Your task to perform on an android device: open app "Spotify" (install if not already installed) Image 0: 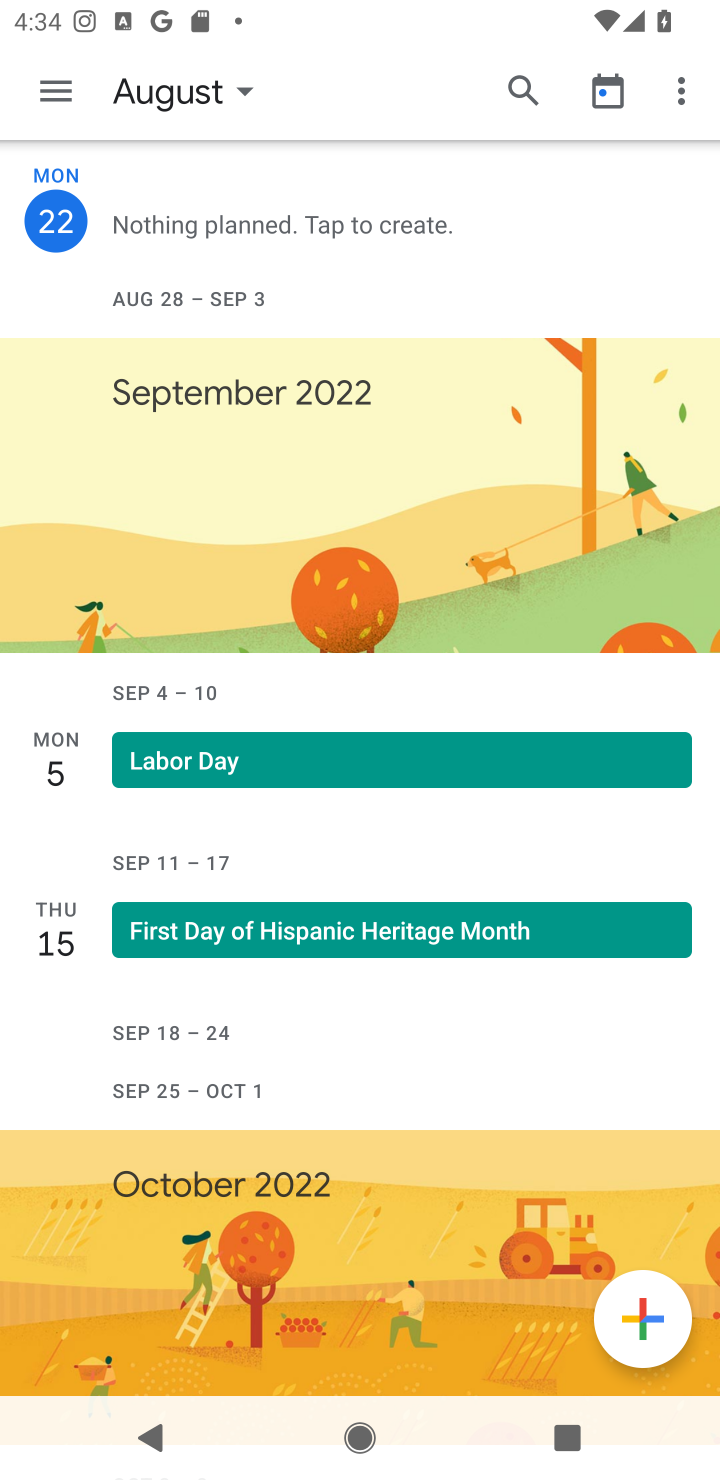
Step 0: press home button
Your task to perform on an android device: open app "Spotify" (install if not already installed) Image 1: 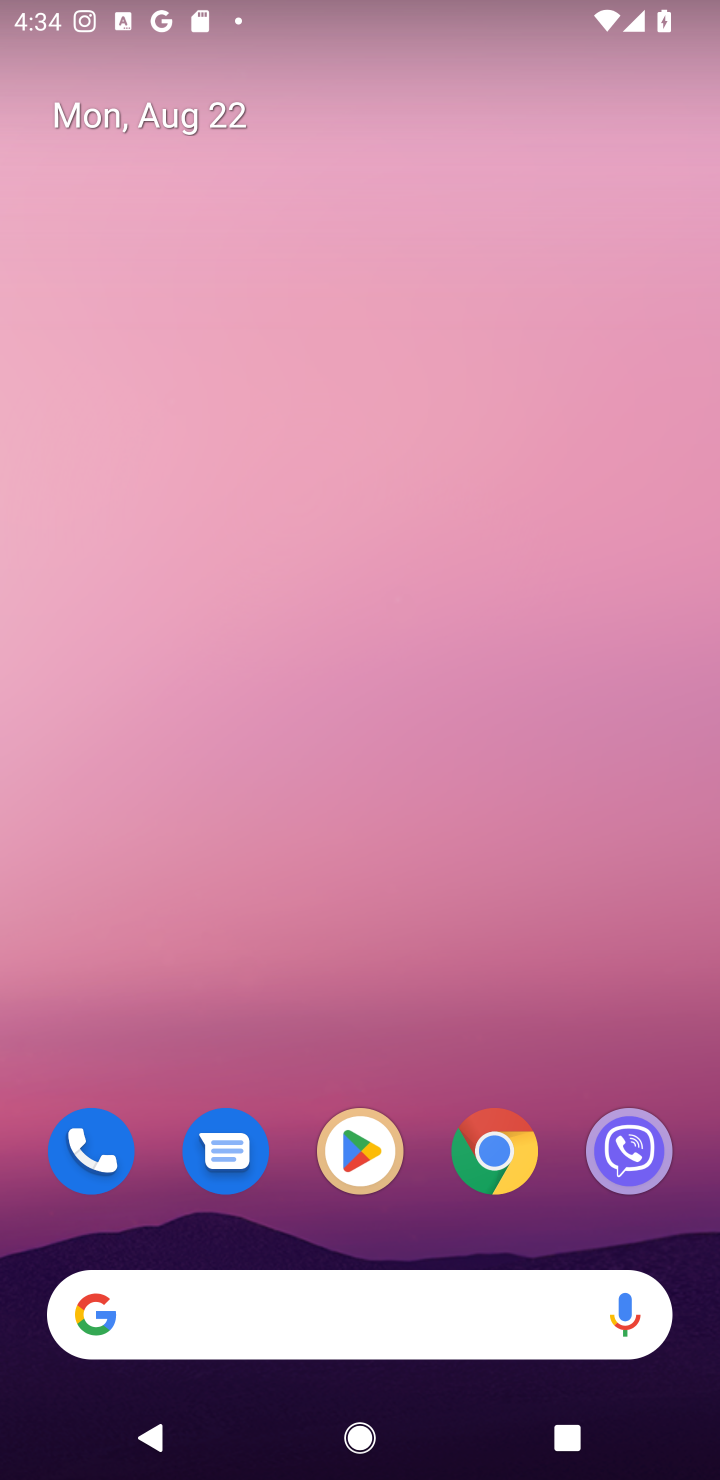
Step 1: click (359, 1153)
Your task to perform on an android device: open app "Spotify" (install if not already installed) Image 2: 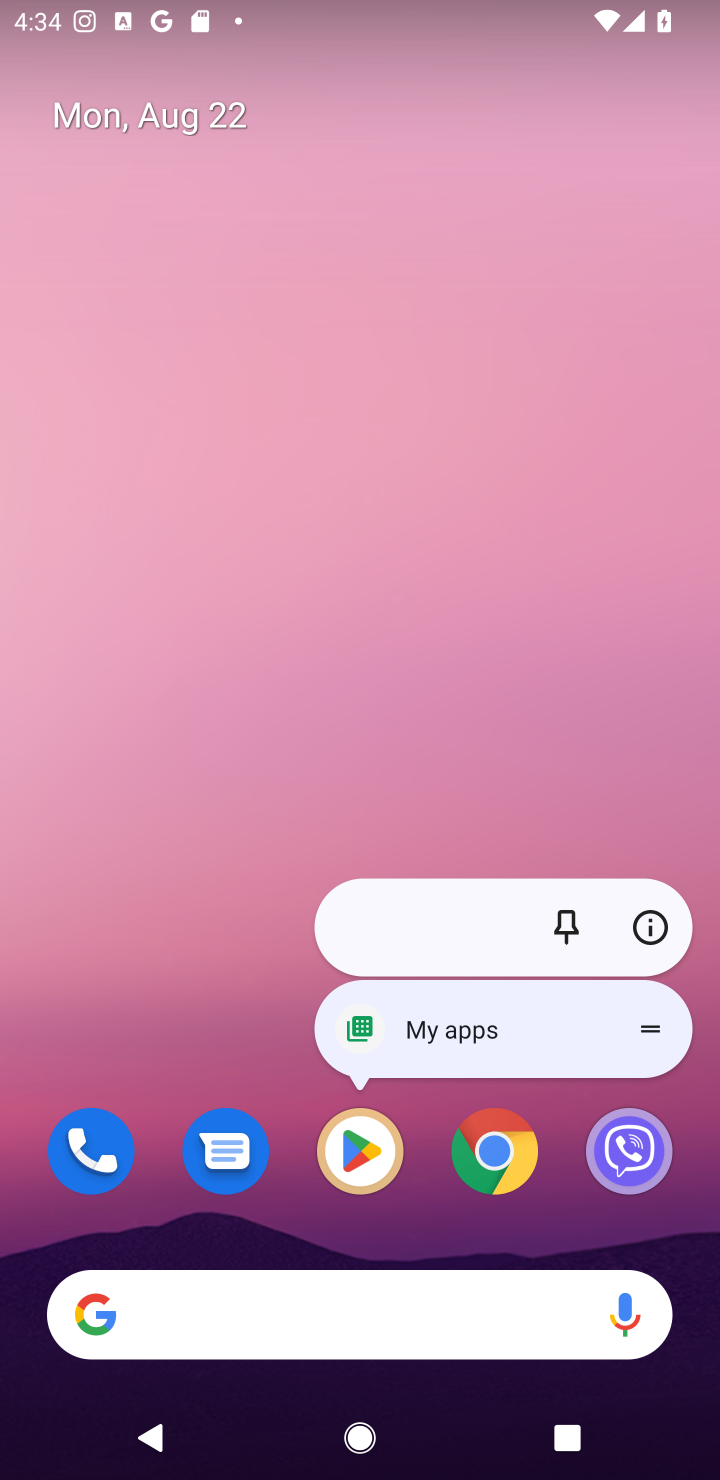
Step 2: click (350, 1151)
Your task to perform on an android device: open app "Spotify" (install if not already installed) Image 3: 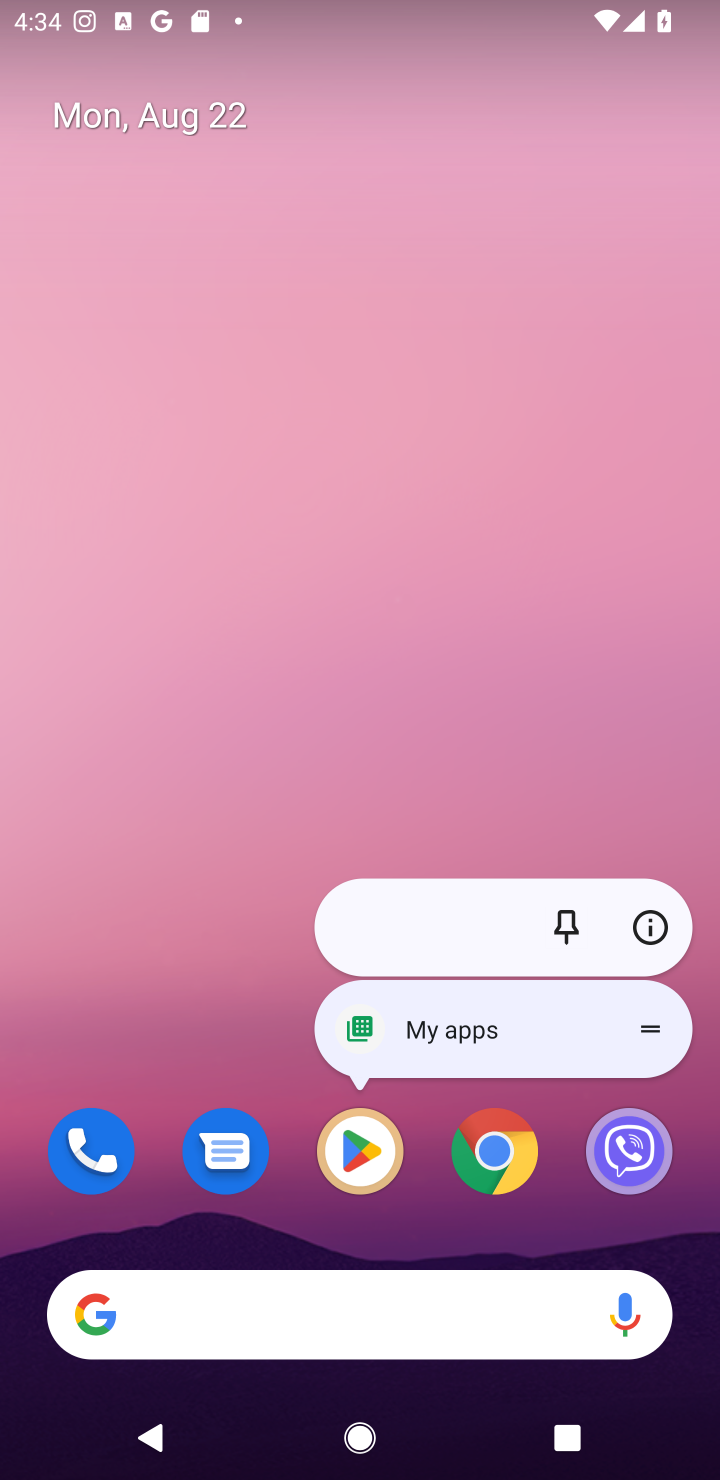
Step 3: click (350, 1149)
Your task to perform on an android device: open app "Spotify" (install if not already installed) Image 4: 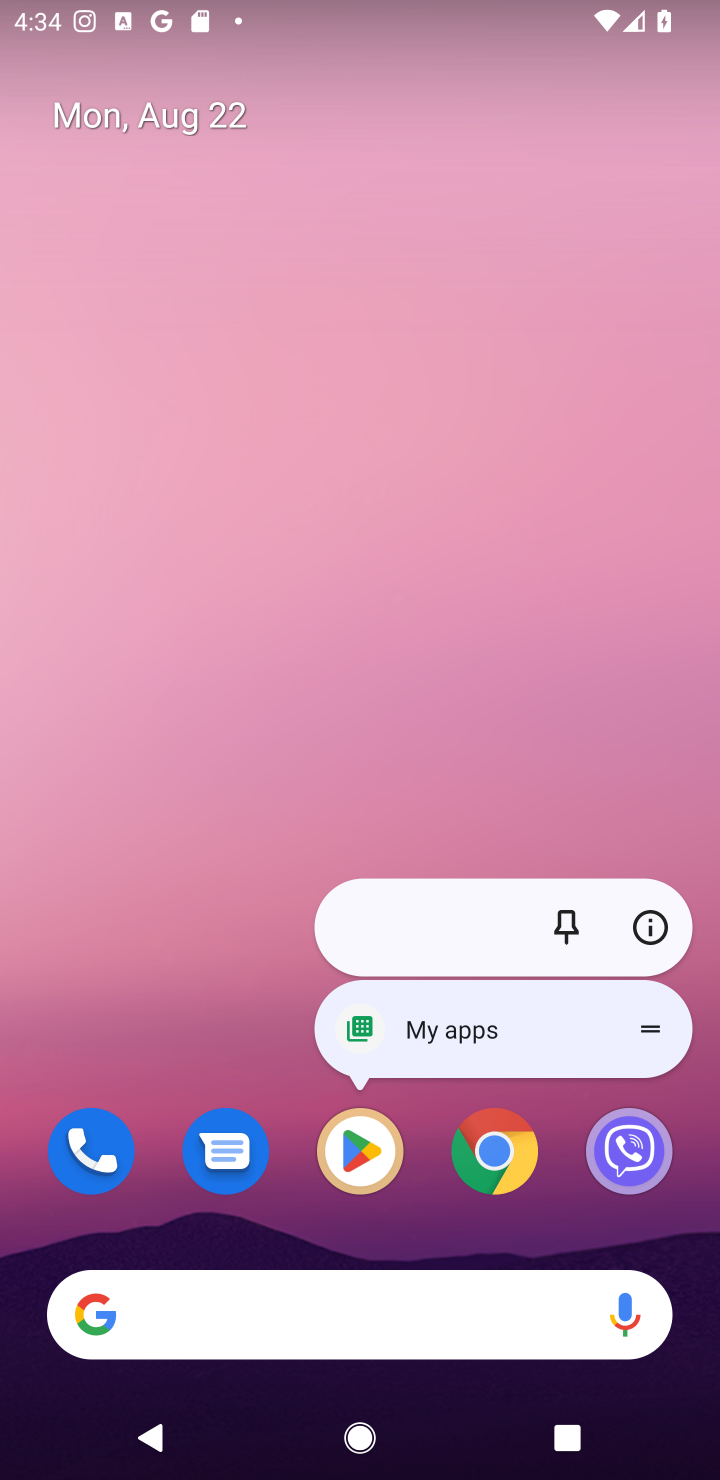
Step 4: click (355, 1152)
Your task to perform on an android device: open app "Spotify" (install if not already installed) Image 5: 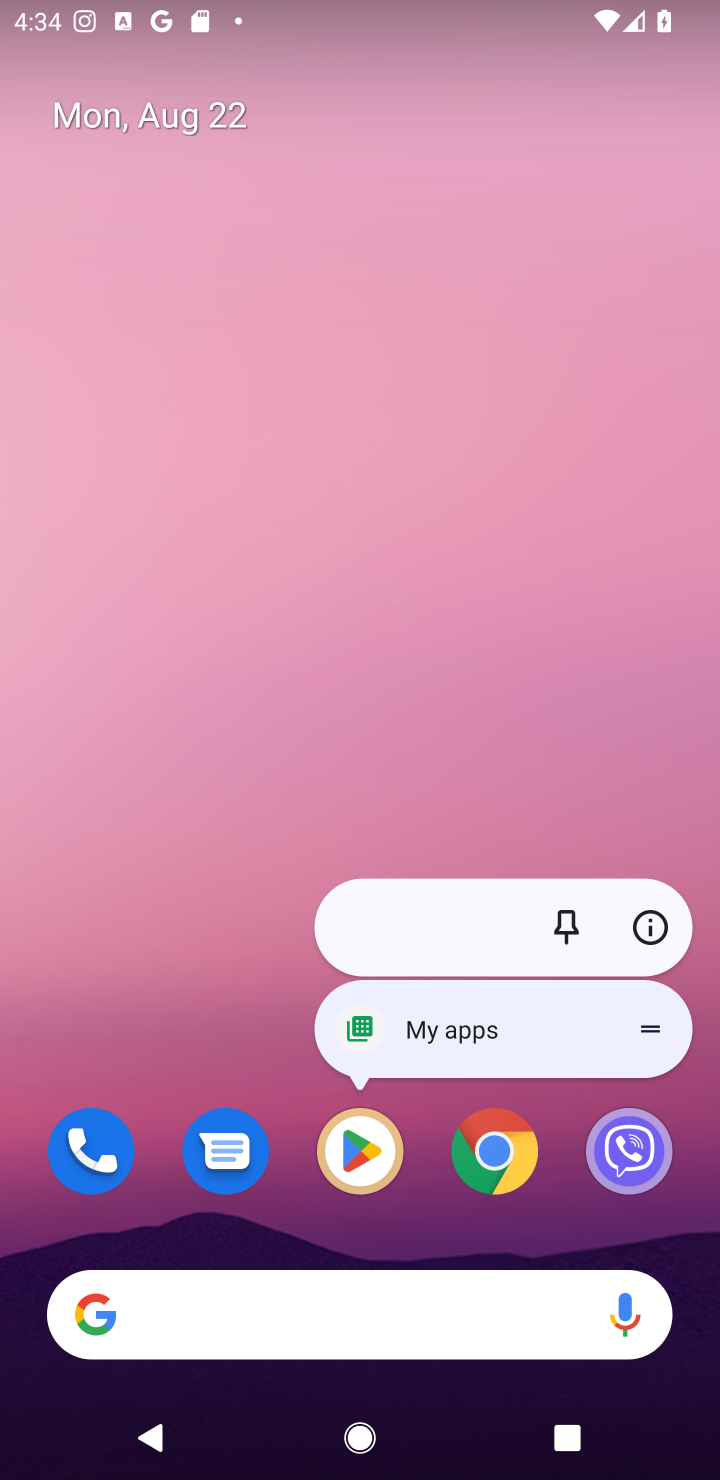
Step 5: click (323, 1164)
Your task to perform on an android device: open app "Spotify" (install if not already installed) Image 6: 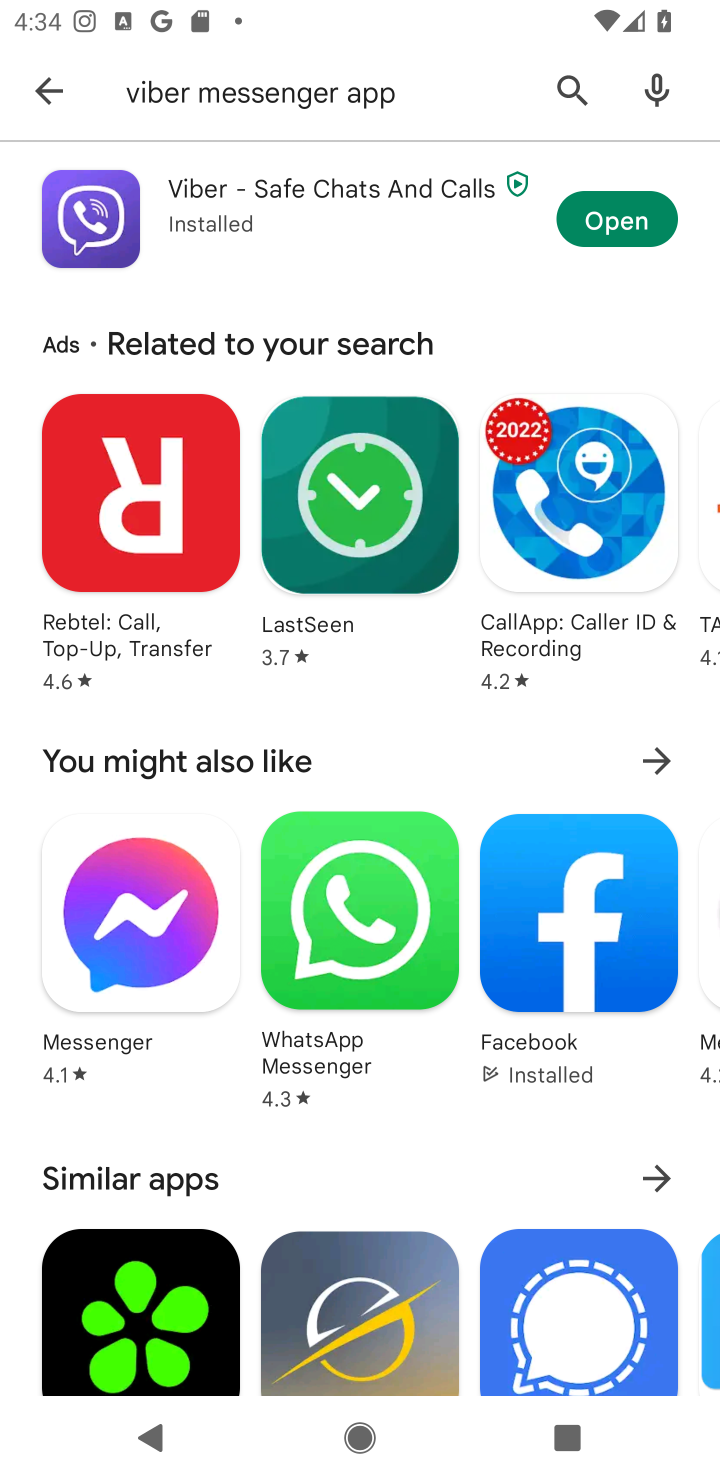
Step 6: click (569, 81)
Your task to perform on an android device: open app "Spotify" (install if not already installed) Image 7: 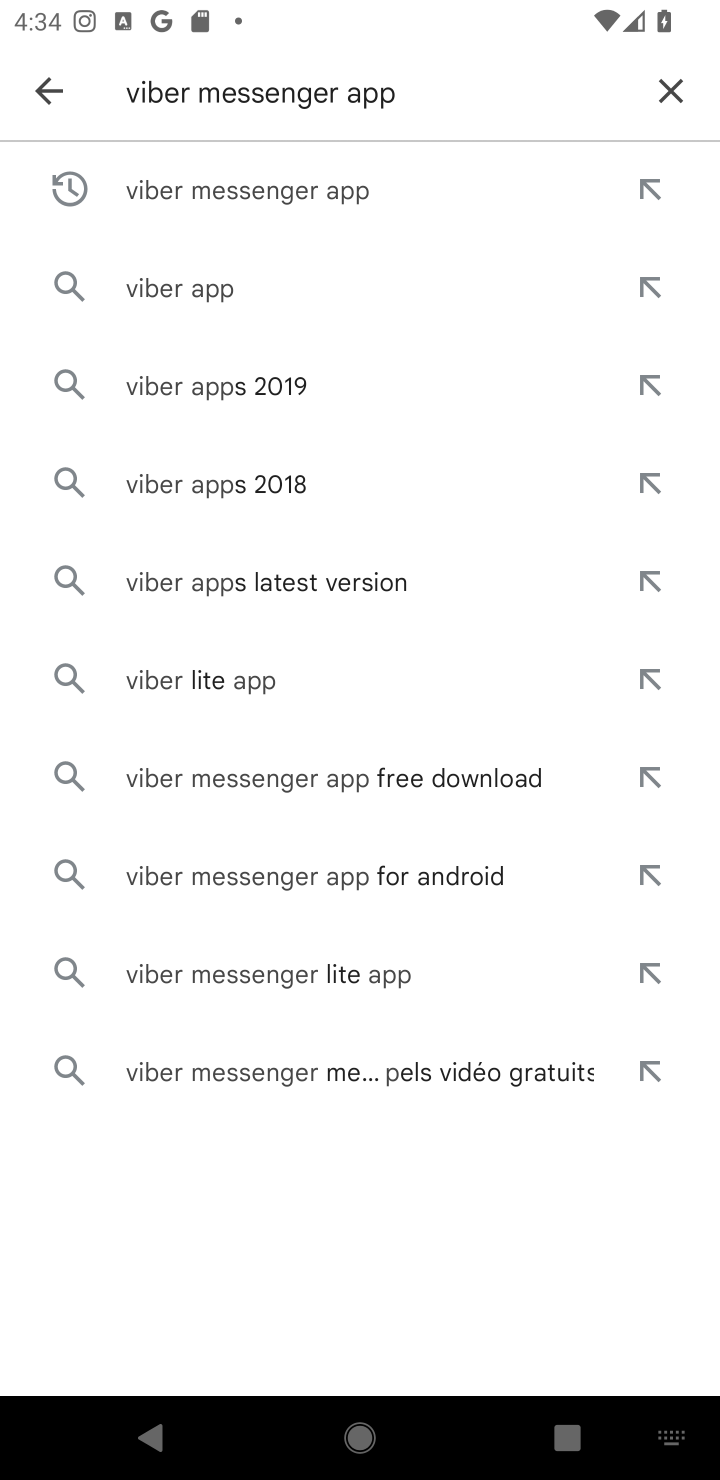
Step 7: click (673, 78)
Your task to perform on an android device: open app "Spotify" (install if not already installed) Image 8: 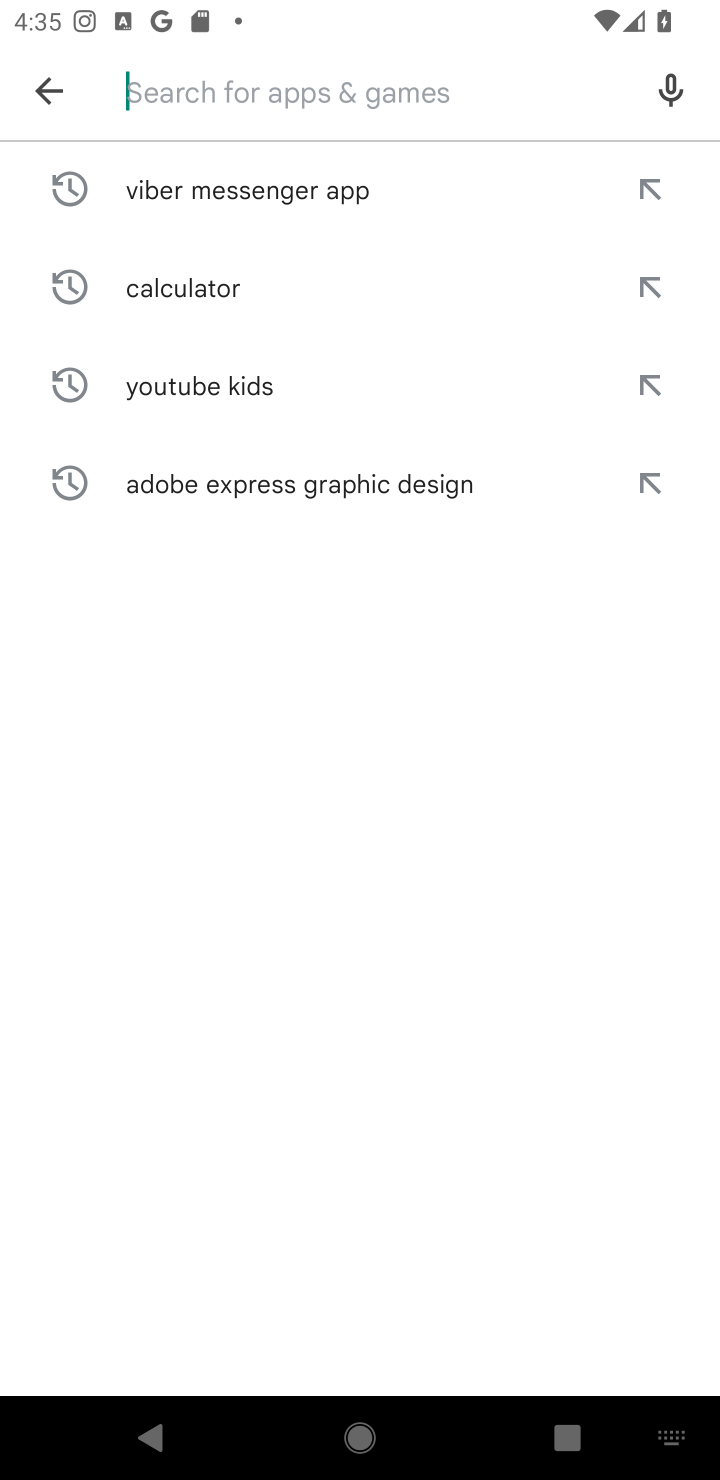
Step 8: type "Spotify"
Your task to perform on an android device: open app "Spotify" (install if not already installed) Image 9: 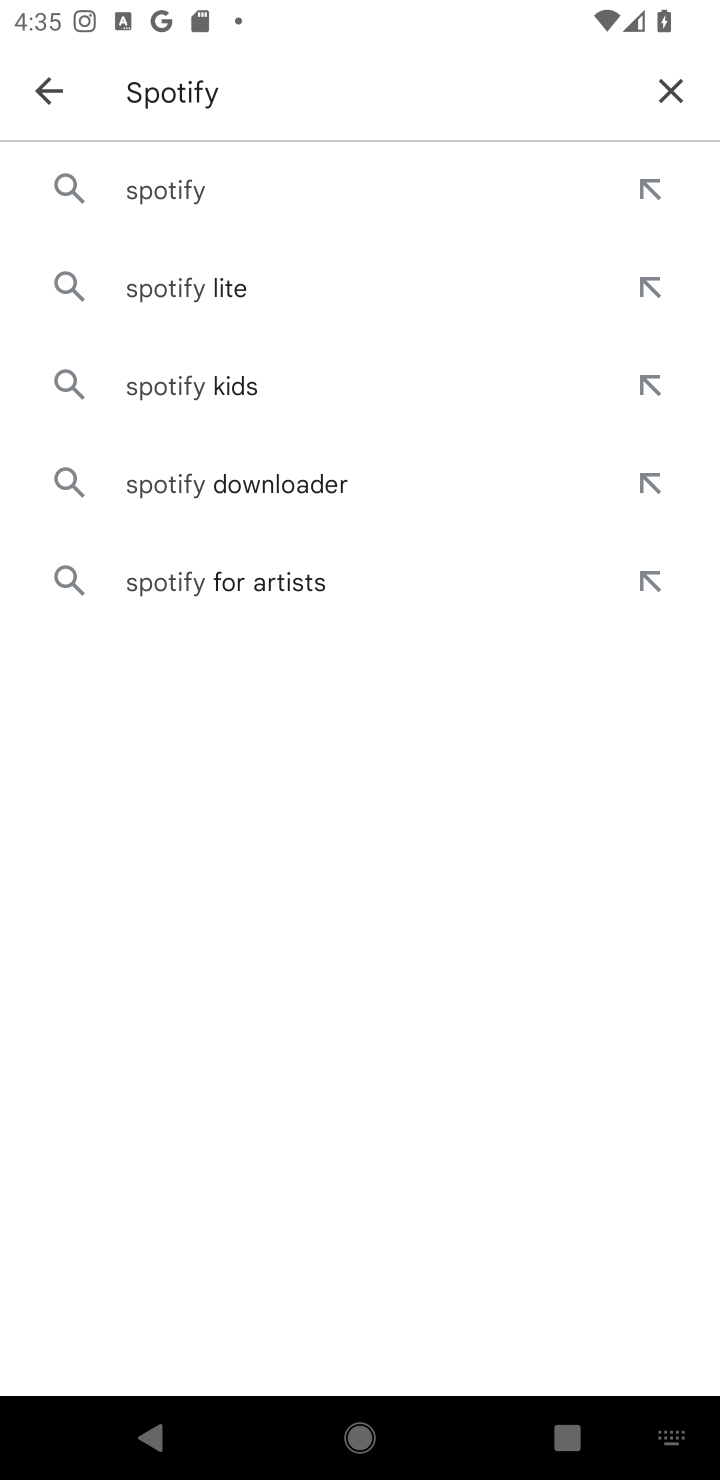
Step 9: click (199, 177)
Your task to perform on an android device: open app "Spotify" (install if not already installed) Image 10: 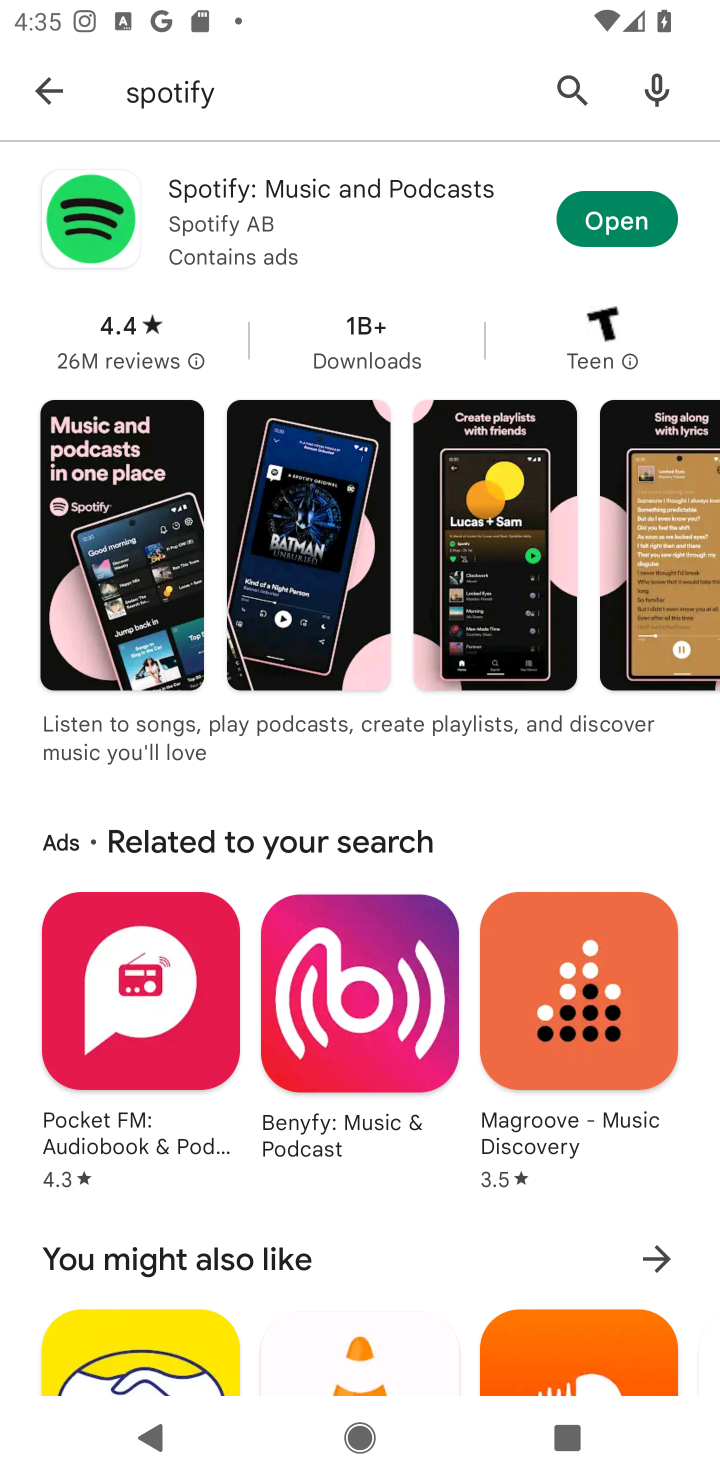
Step 10: click (604, 219)
Your task to perform on an android device: open app "Spotify" (install if not already installed) Image 11: 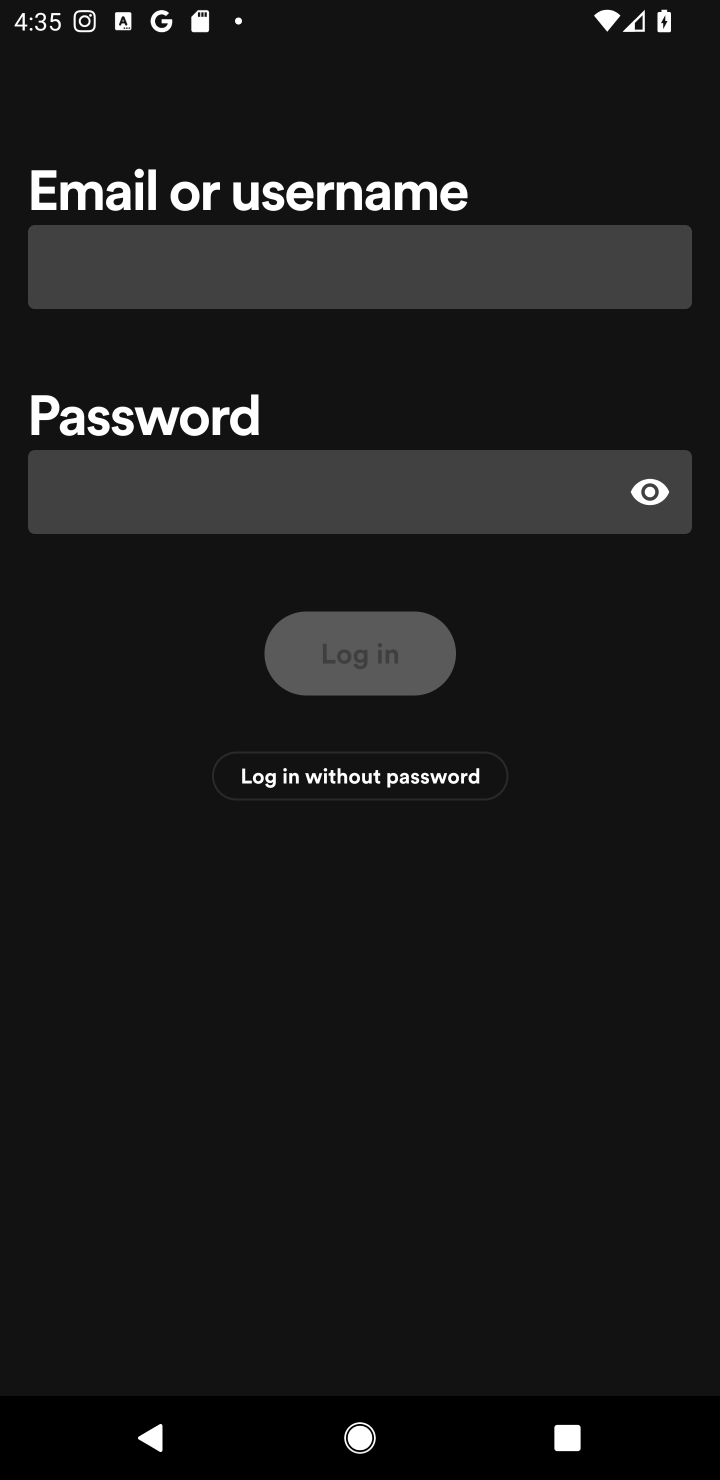
Step 11: task complete